Your task to perform on an android device: open a new tab in the chrome app Image 0: 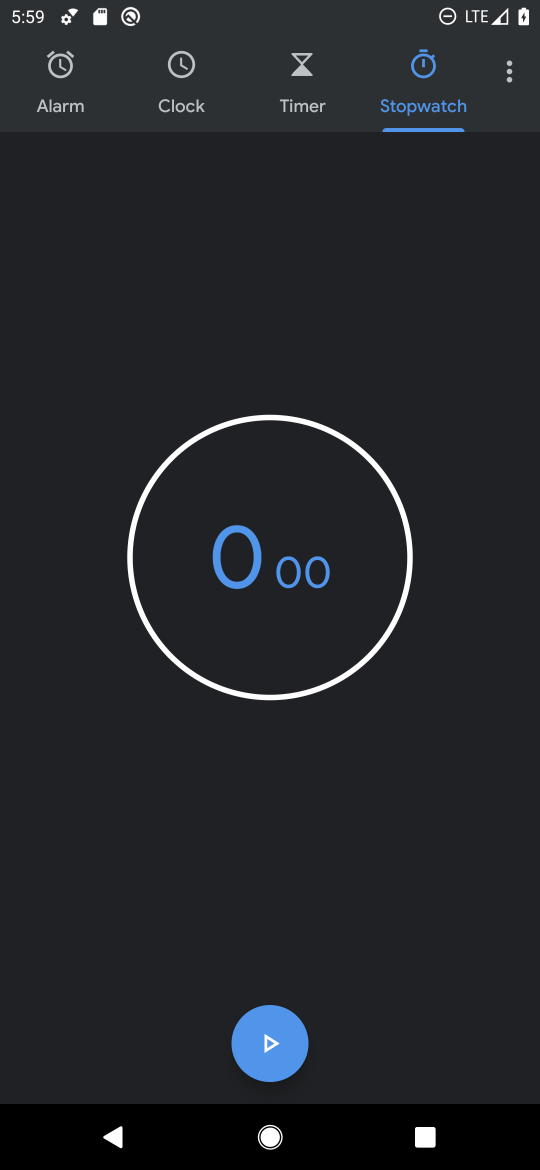
Step 0: press home button
Your task to perform on an android device: open a new tab in the chrome app Image 1: 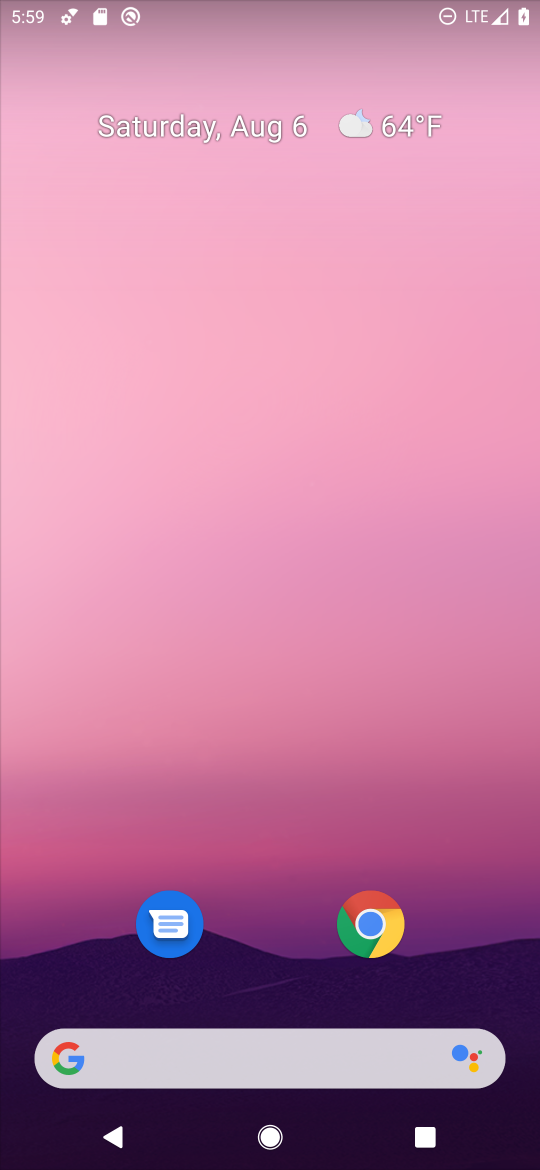
Step 1: click (370, 919)
Your task to perform on an android device: open a new tab in the chrome app Image 2: 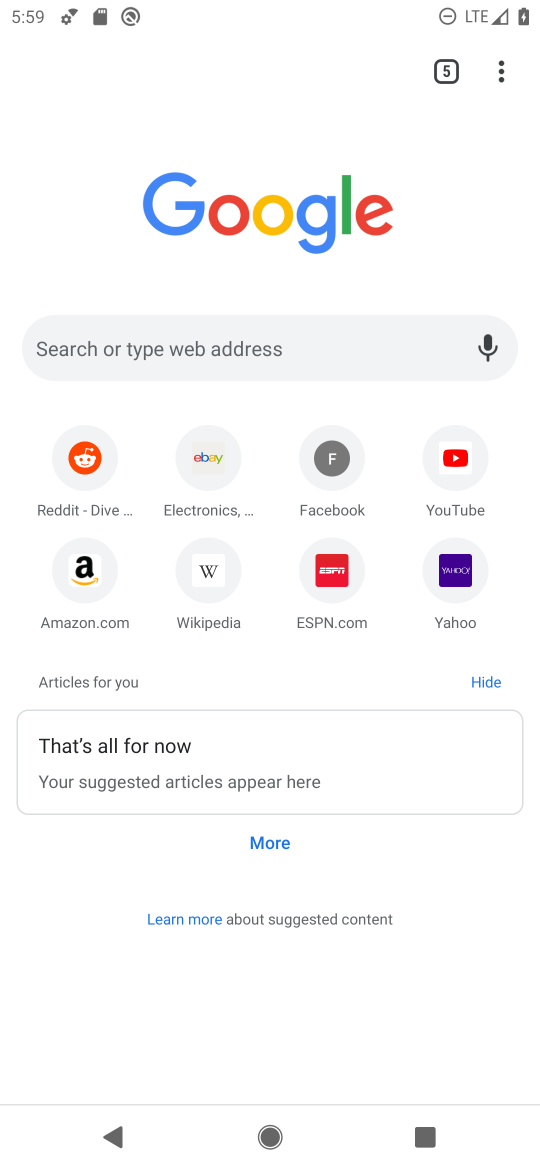
Step 2: click (509, 74)
Your task to perform on an android device: open a new tab in the chrome app Image 3: 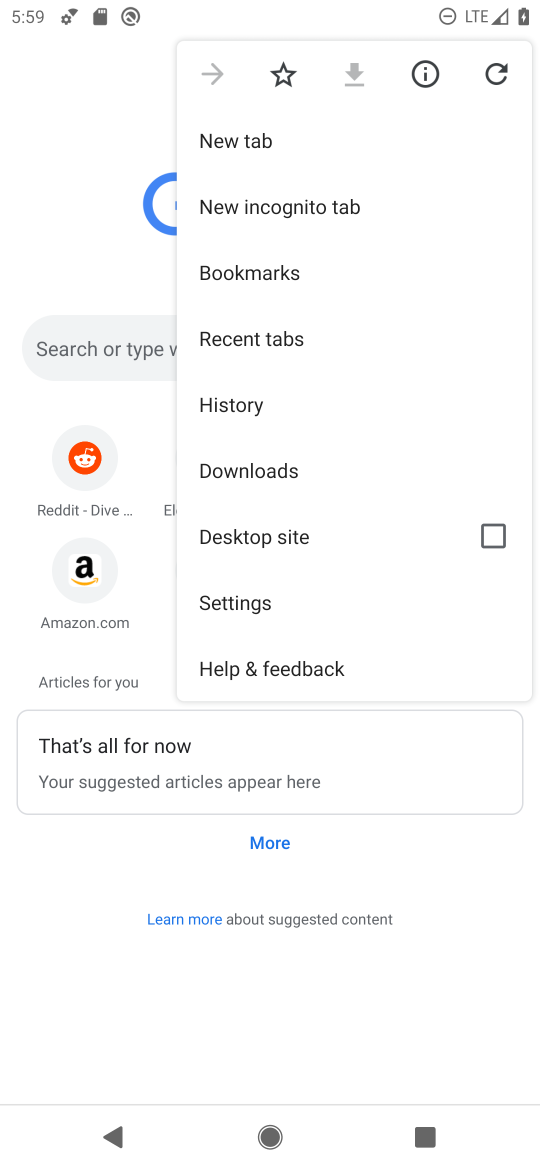
Step 3: click (228, 124)
Your task to perform on an android device: open a new tab in the chrome app Image 4: 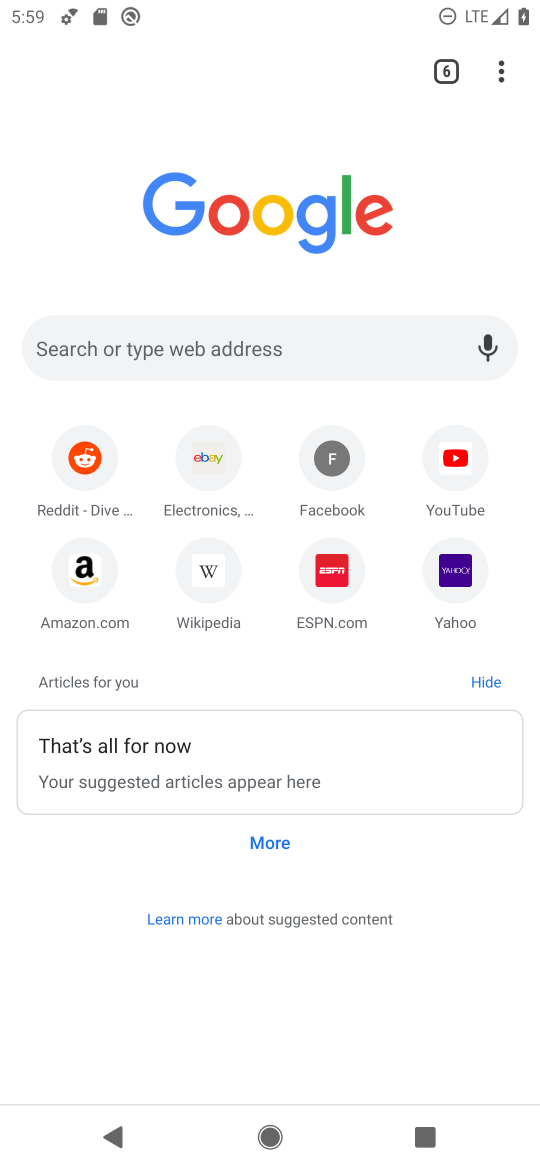
Step 4: task complete